Your task to perform on an android device: Open wifi settings Image 0: 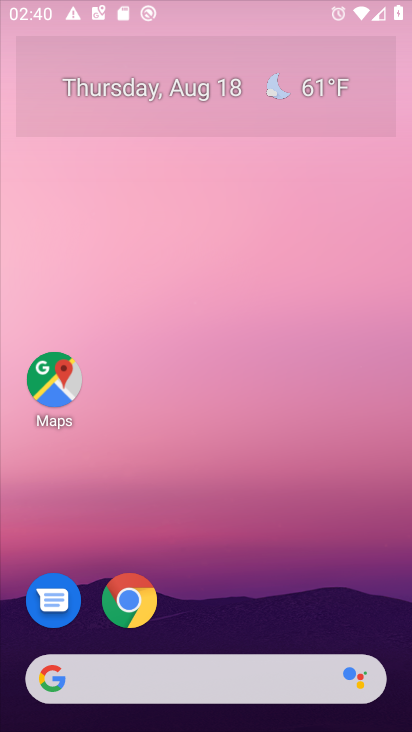
Step 0: press home button
Your task to perform on an android device: Open wifi settings Image 1: 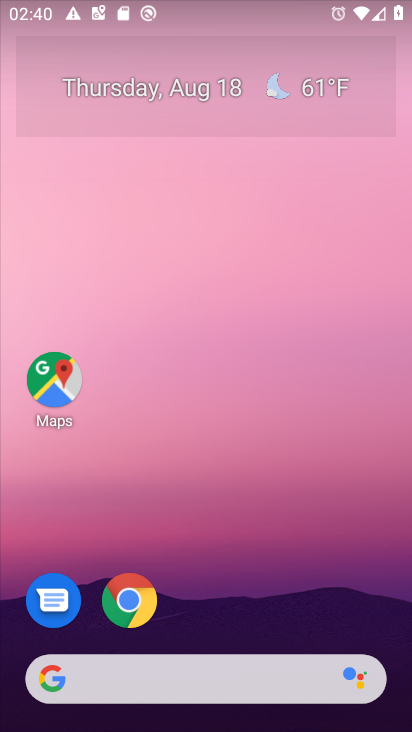
Step 1: drag from (249, 521) to (233, 144)
Your task to perform on an android device: Open wifi settings Image 2: 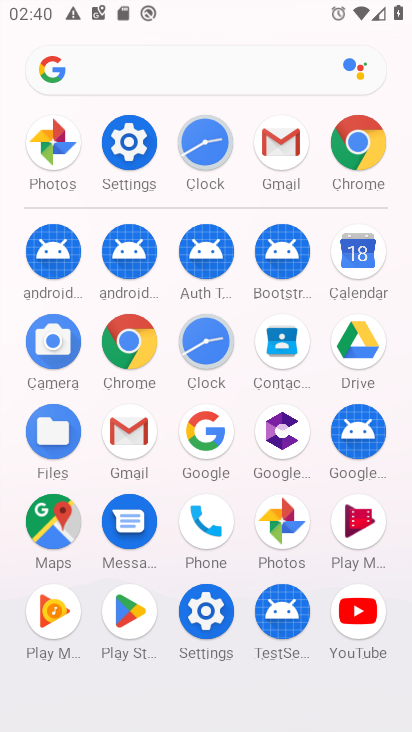
Step 2: click (129, 144)
Your task to perform on an android device: Open wifi settings Image 3: 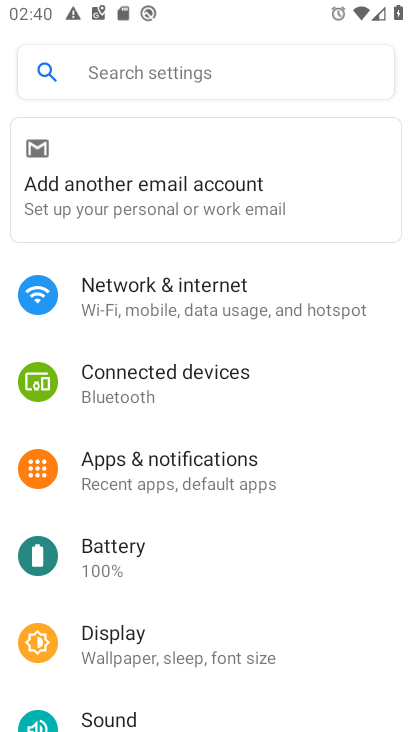
Step 3: click (164, 166)
Your task to perform on an android device: Open wifi settings Image 4: 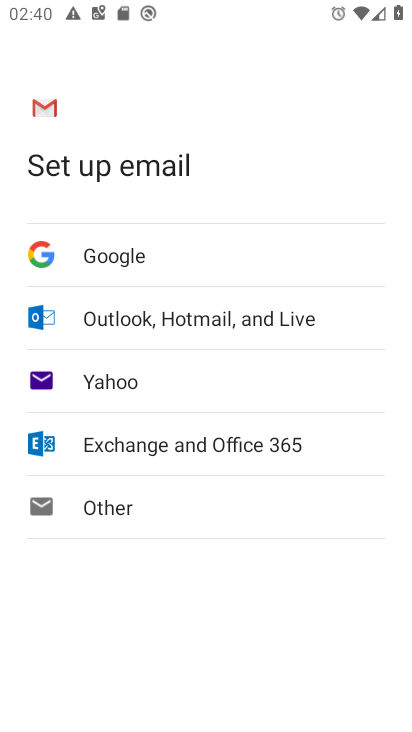
Step 4: press back button
Your task to perform on an android device: Open wifi settings Image 5: 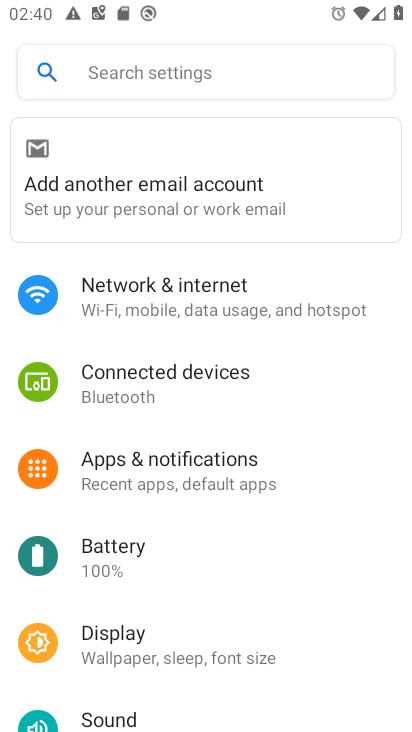
Step 5: click (142, 299)
Your task to perform on an android device: Open wifi settings Image 6: 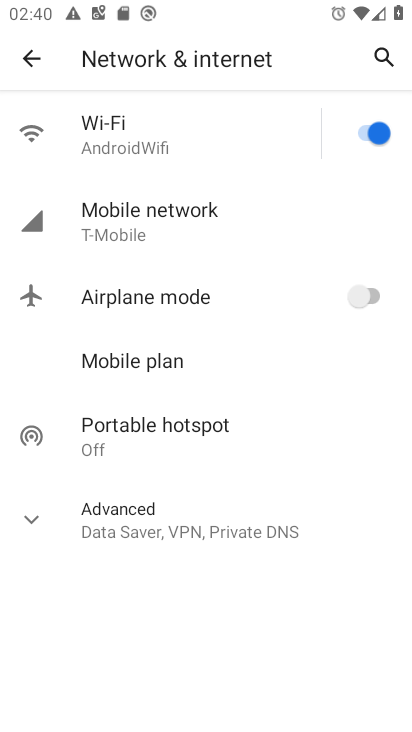
Step 6: click (105, 136)
Your task to perform on an android device: Open wifi settings Image 7: 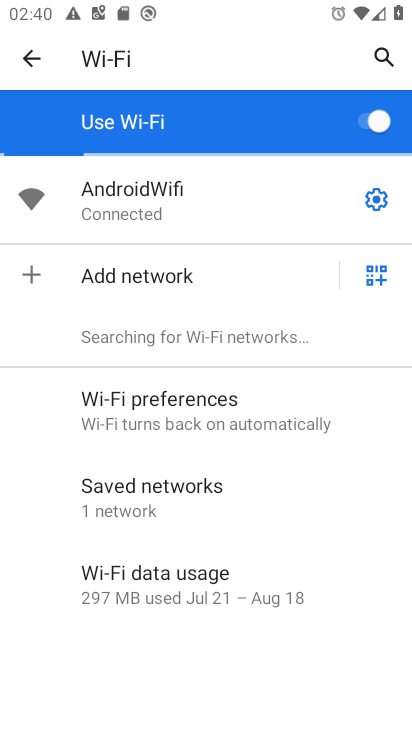
Step 7: task complete